Your task to perform on an android device: What's the weather going to be tomorrow? Image 0: 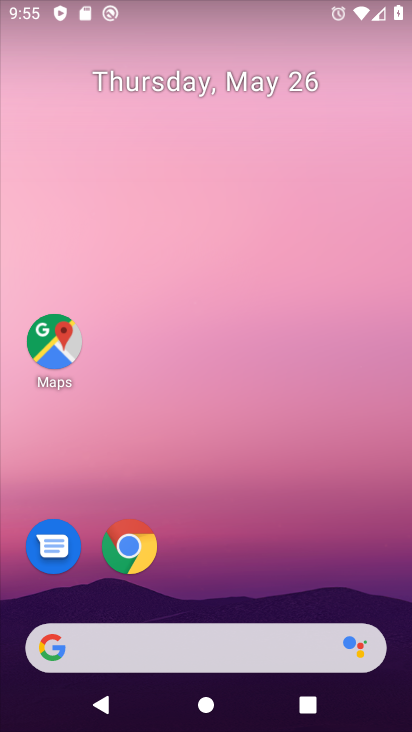
Step 0: drag from (262, 562) to (191, 116)
Your task to perform on an android device: What's the weather going to be tomorrow? Image 1: 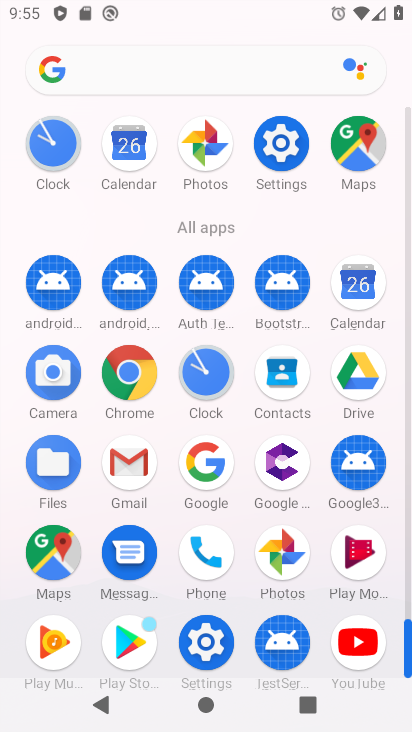
Step 1: click (202, 462)
Your task to perform on an android device: What's the weather going to be tomorrow? Image 2: 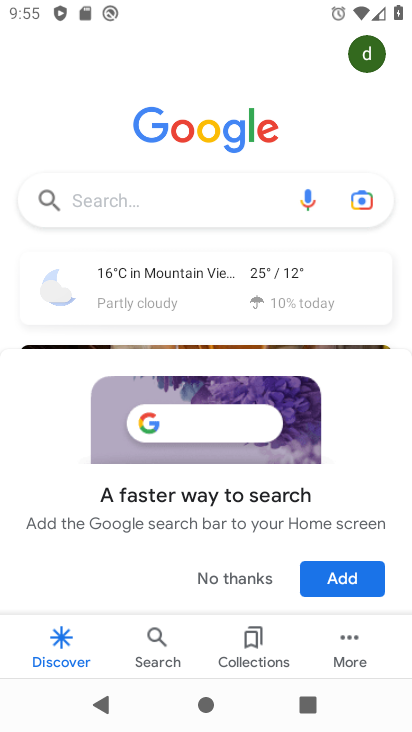
Step 2: click (224, 203)
Your task to perform on an android device: What's the weather going to be tomorrow? Image 3: 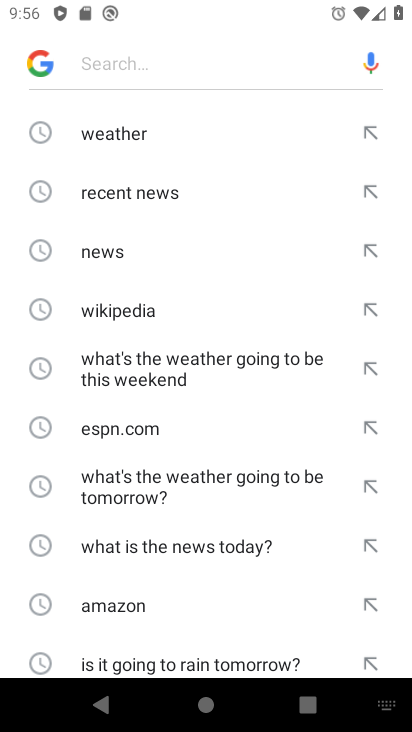
Step 3: type "What"
Your task to perform on an android device: What's the weather going to be tomorrow? Image 4: 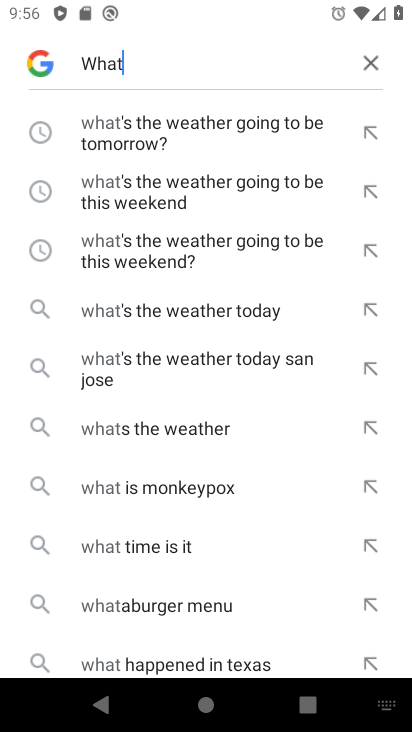
Step 4: click (242, 127)
Your task to perform on an android device: What's the weather going to be tomorrow? Image 5: 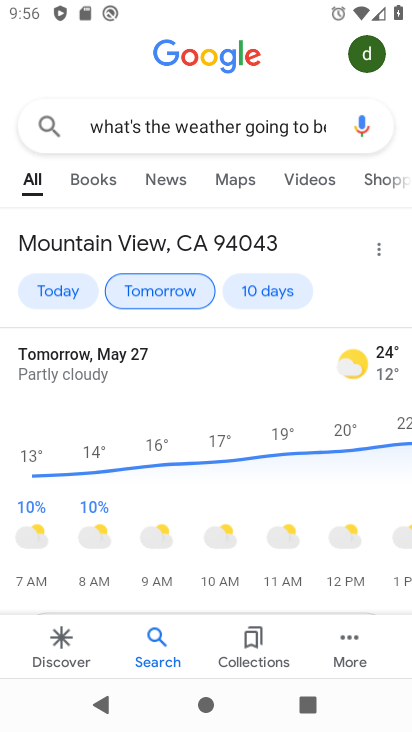
Step 5: task complete